Your task to perform on an android device: Open Google Chrome and click the shortcut for Amazon.com Image 0: 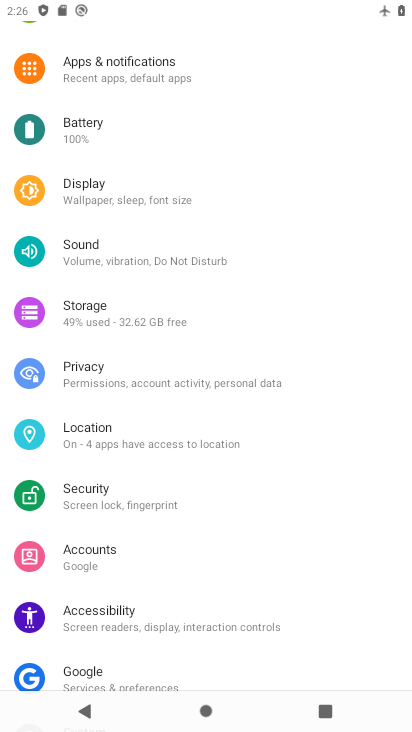
Step 0: press home button
Your task to perform on an android device: Open Google Chrome and click the shortcut for Amazon.com Image 1: 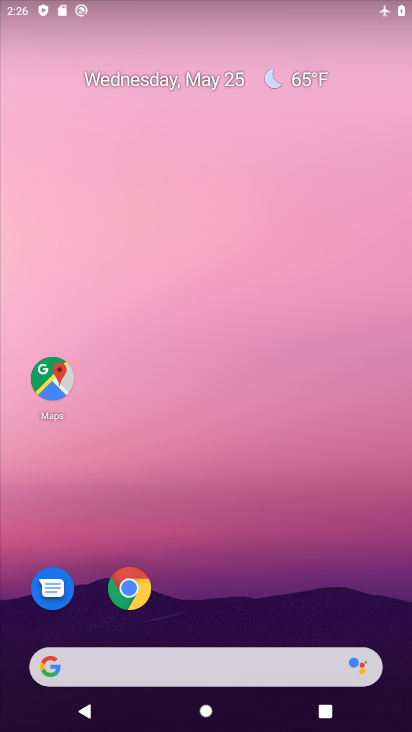
Step 1: click (134, 584)
Your task to perform on an android device: Open Google Chrome and click the shortcut for Amazon.com Image 2: 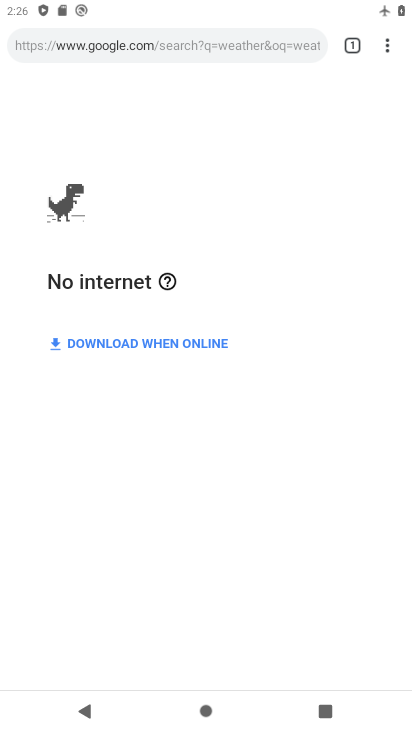
Step 2: press home button
Your task to perform on an android device: Open Google Chrome and click the shortcut for Amazon.com Image 3: 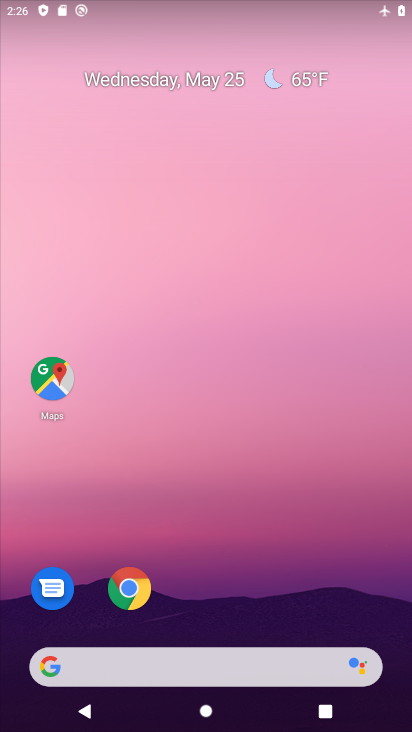
Step 3: drag from (206, 584) to (239, 237)
Your task to perform on an android device: Open Google Chrome and click the shortcut for Amazon.com Image 4: 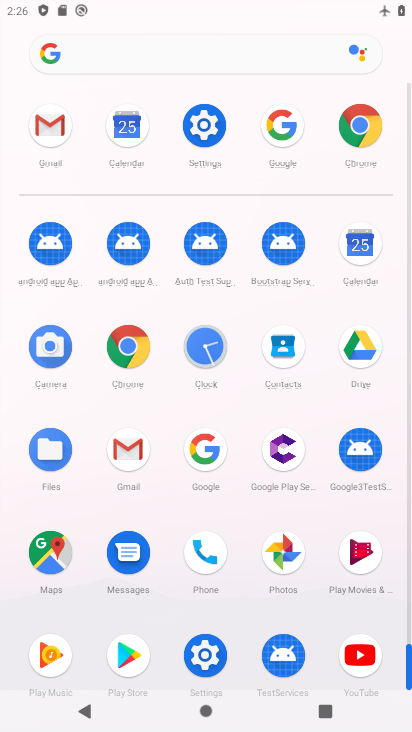
Step 4: click (127, 341)
Your task to perform on an android device: Open Google Chrome and click the shortcut for Amazon.com Image 5: 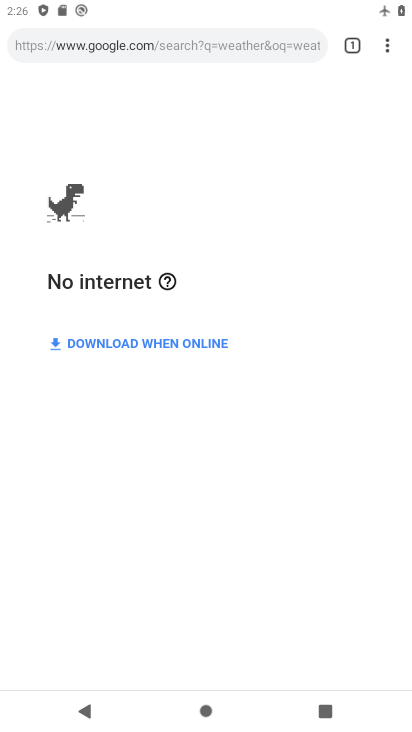
Step 5: task complete